Your task to perform on an android device: What is the capital of France? Image 0: 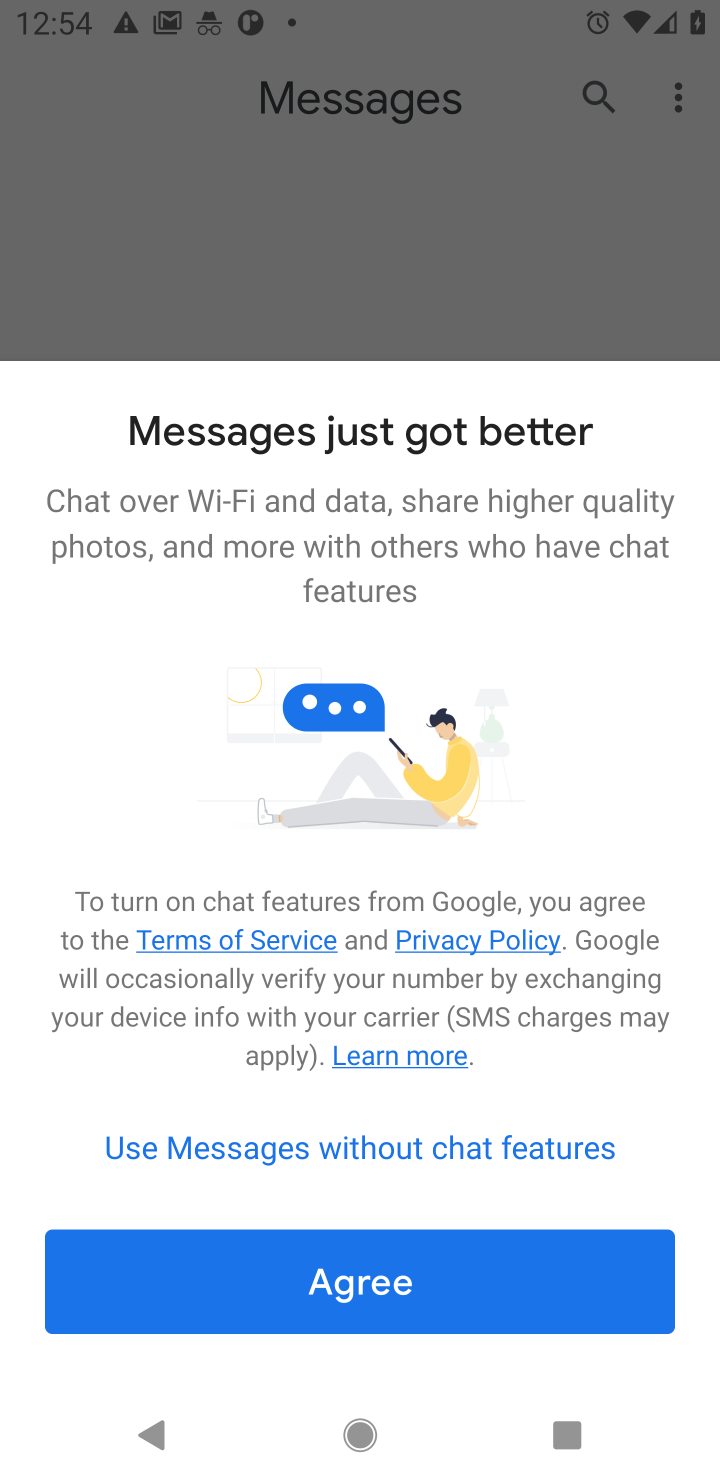
Step 0: press home button
Your task to perform on an android device: What is the capital of France? Image 1: 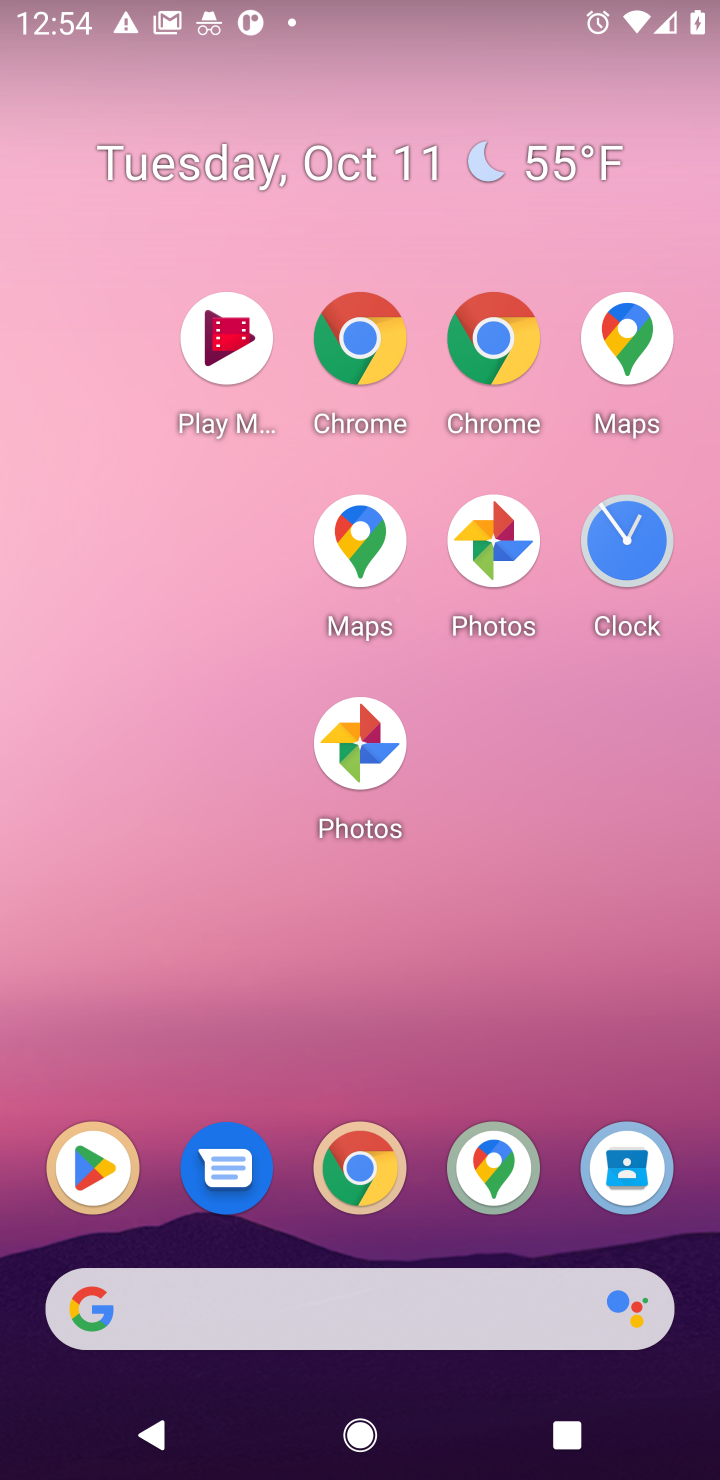
Step 1: drag from (306, 1180) to (411, 526)
Your task to perform on an android device: What is the capital of France? Image 2: 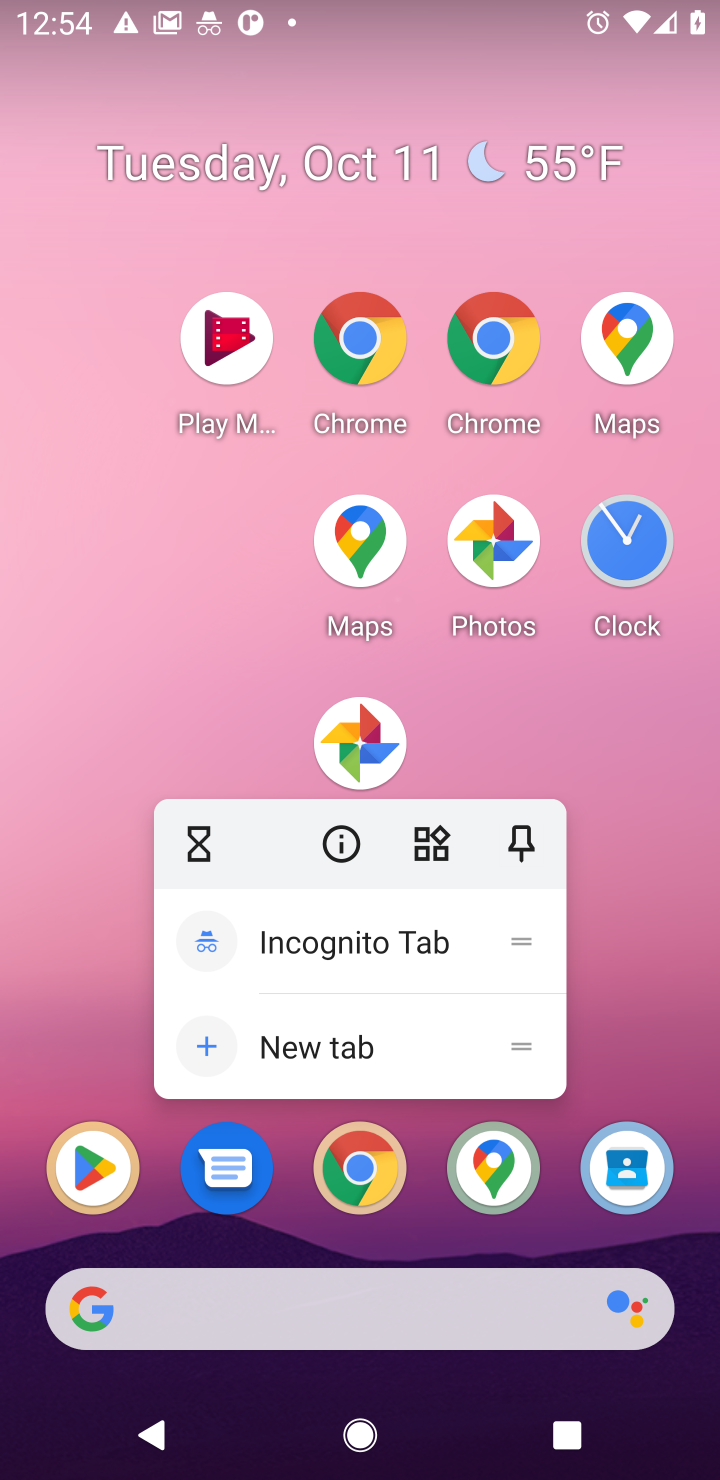
Step 2: click (170, 624)
Your task to perform on an android device: What is the capital of France? Image 3: 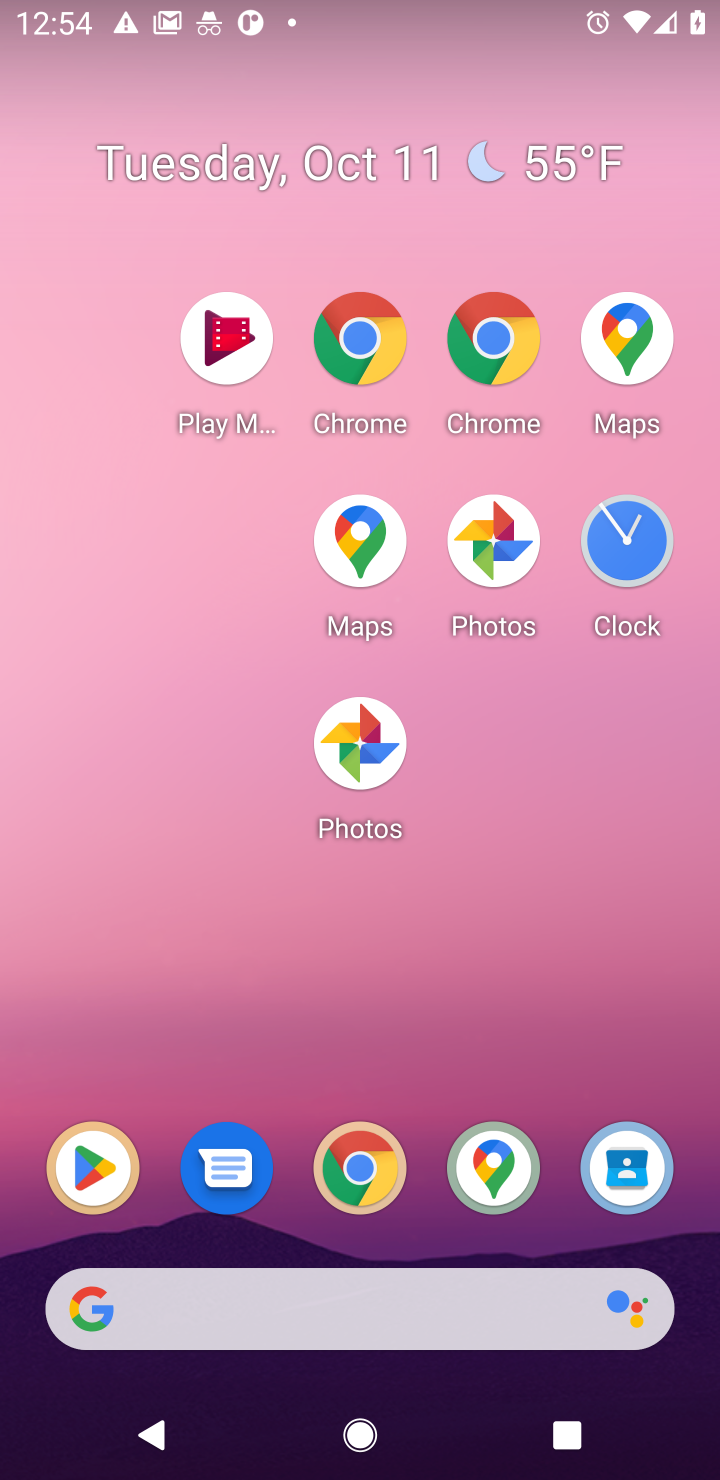
Step 3: drag from (228, 1030) to (400, 36)
Your task to perform on an android device: What is the capital of France? Image 4: 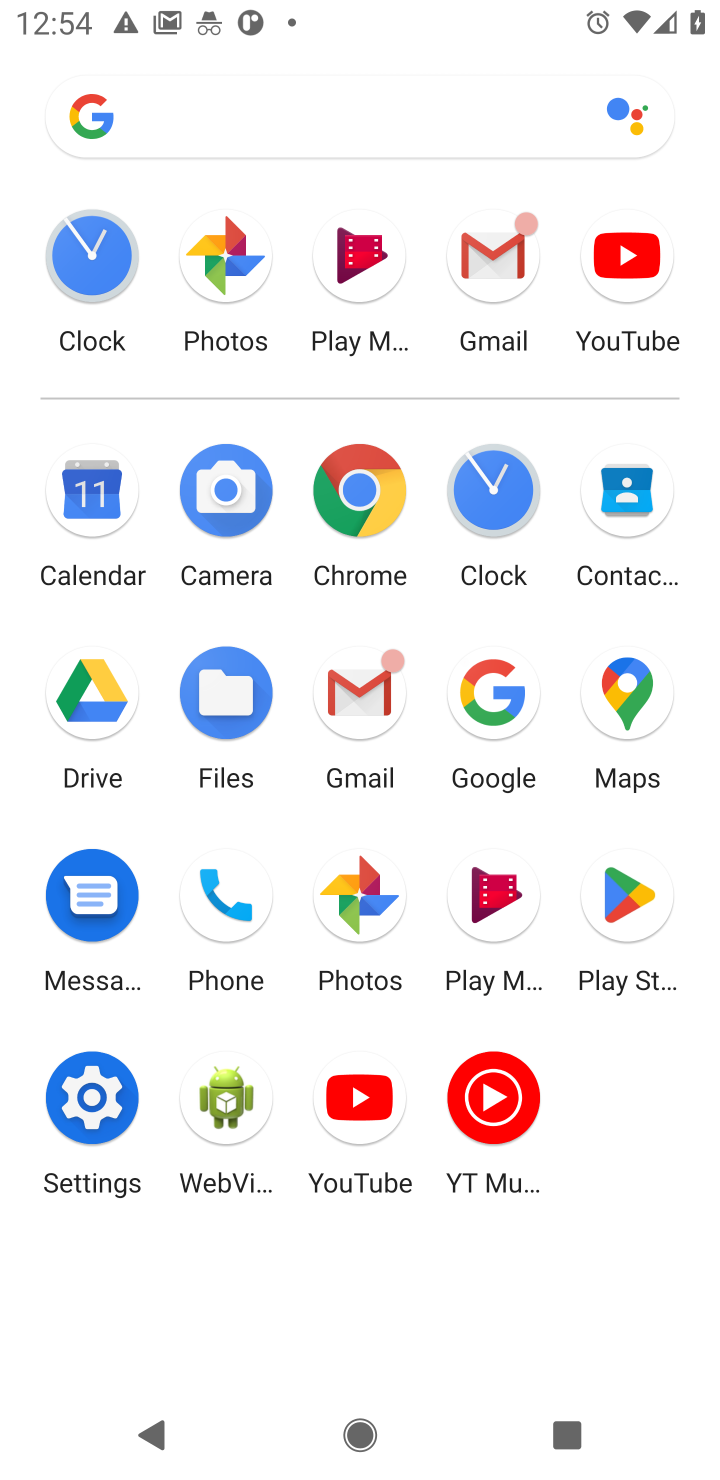
Step 4: click (516, 695)
Your task to perform on an android device: What is the capital of France? Image 5: 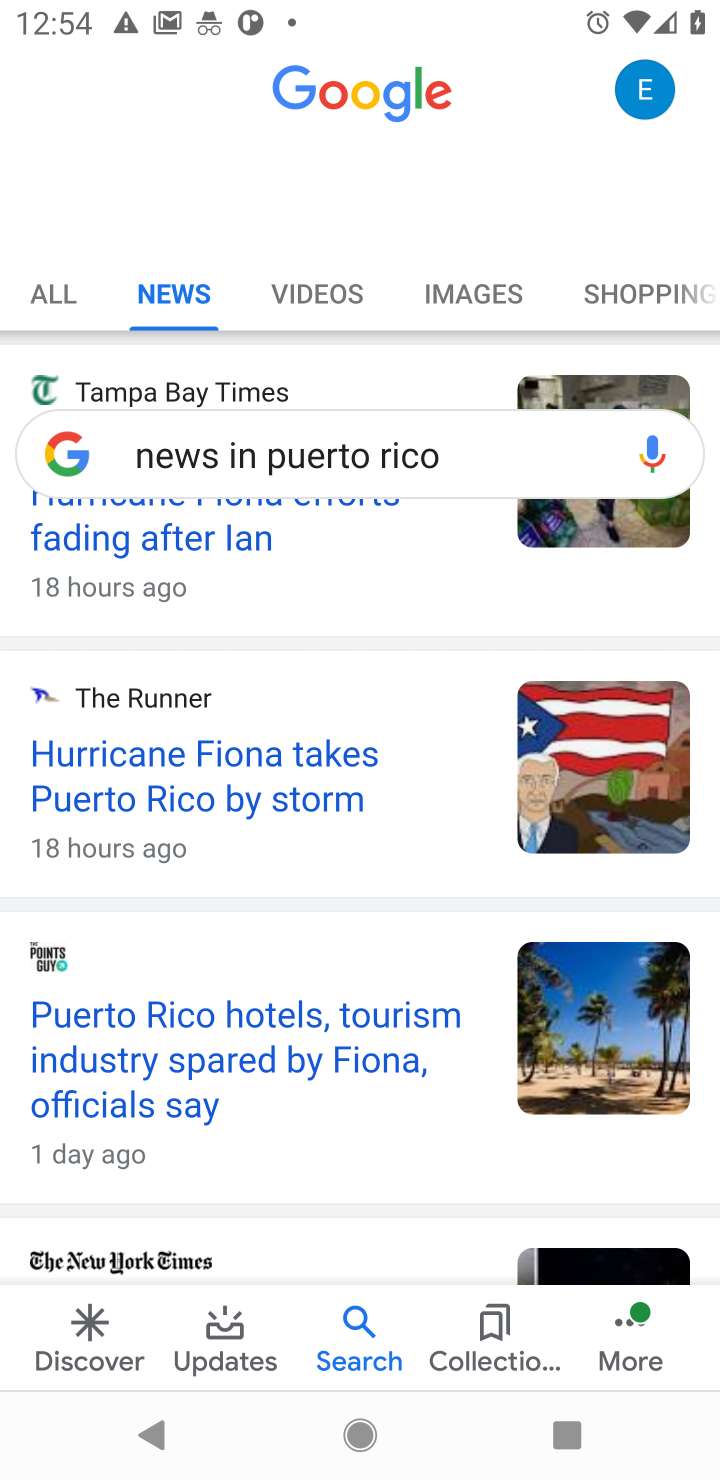
Step 5: click (483, 465)
Your task to perform on an android device: What is the capital of France? Image 6: 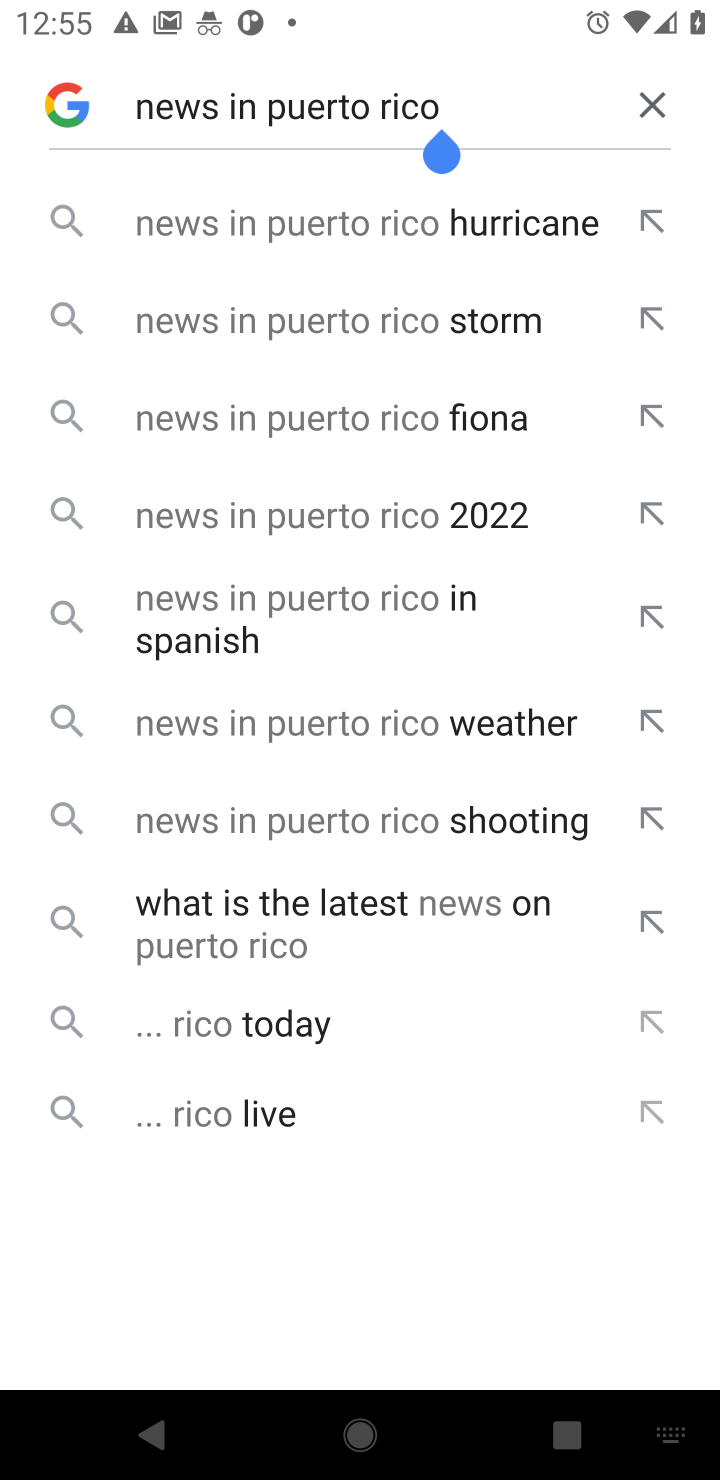
Step 6: click (665, 155)
Your task to perform on an android device: What is the capital of France? Image 7: 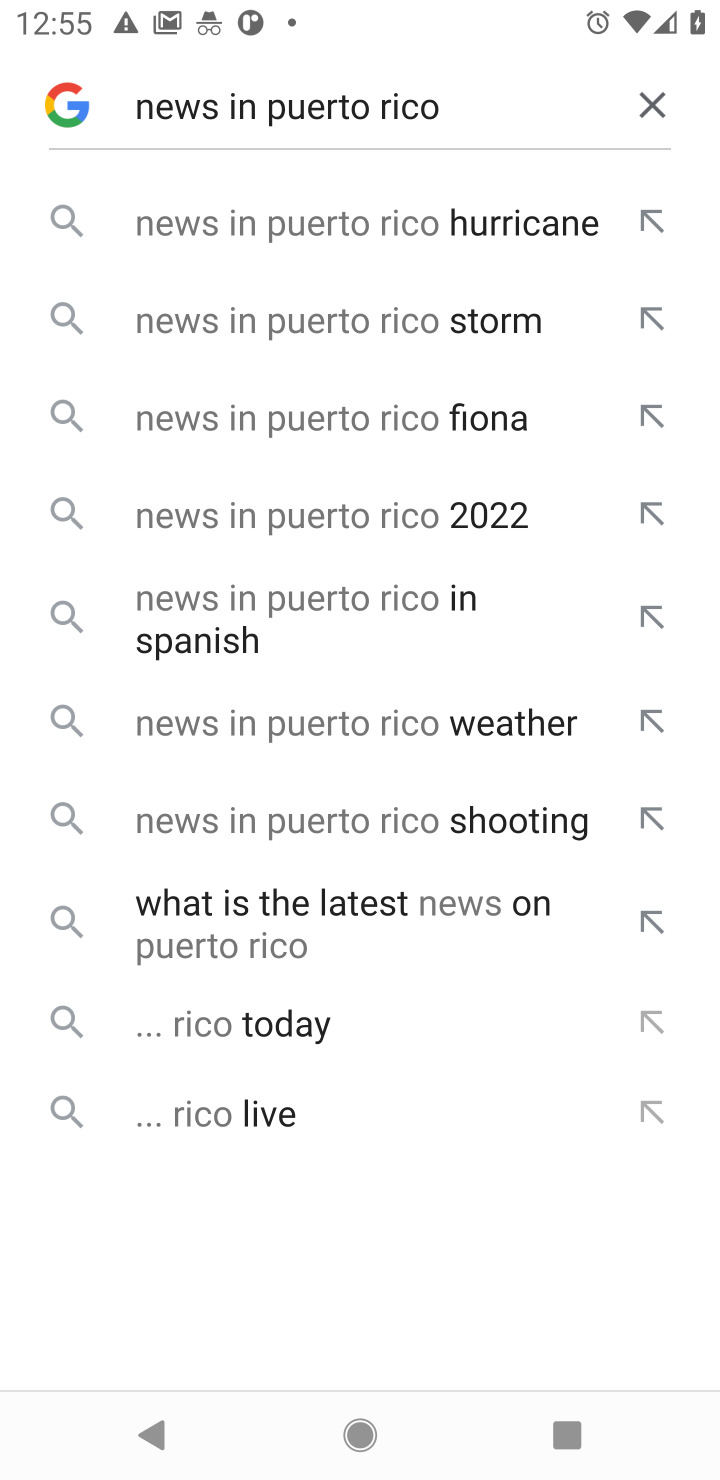
Step 7: click (650, 95)
Your task to perform on an android device: What is the capital of France? Image 8: 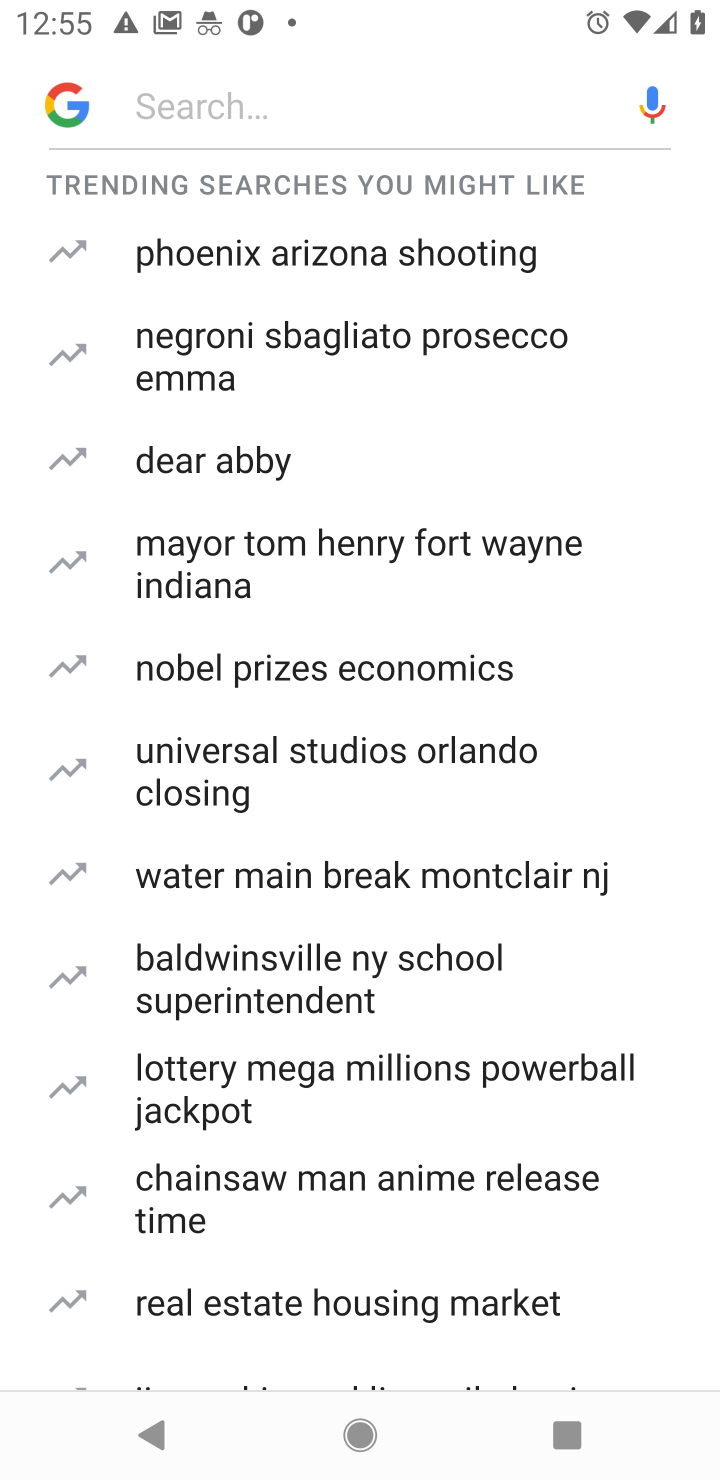
Step 8: type "capital of France"
Your task to perform on an android device: What is the capital of France? Image 9: 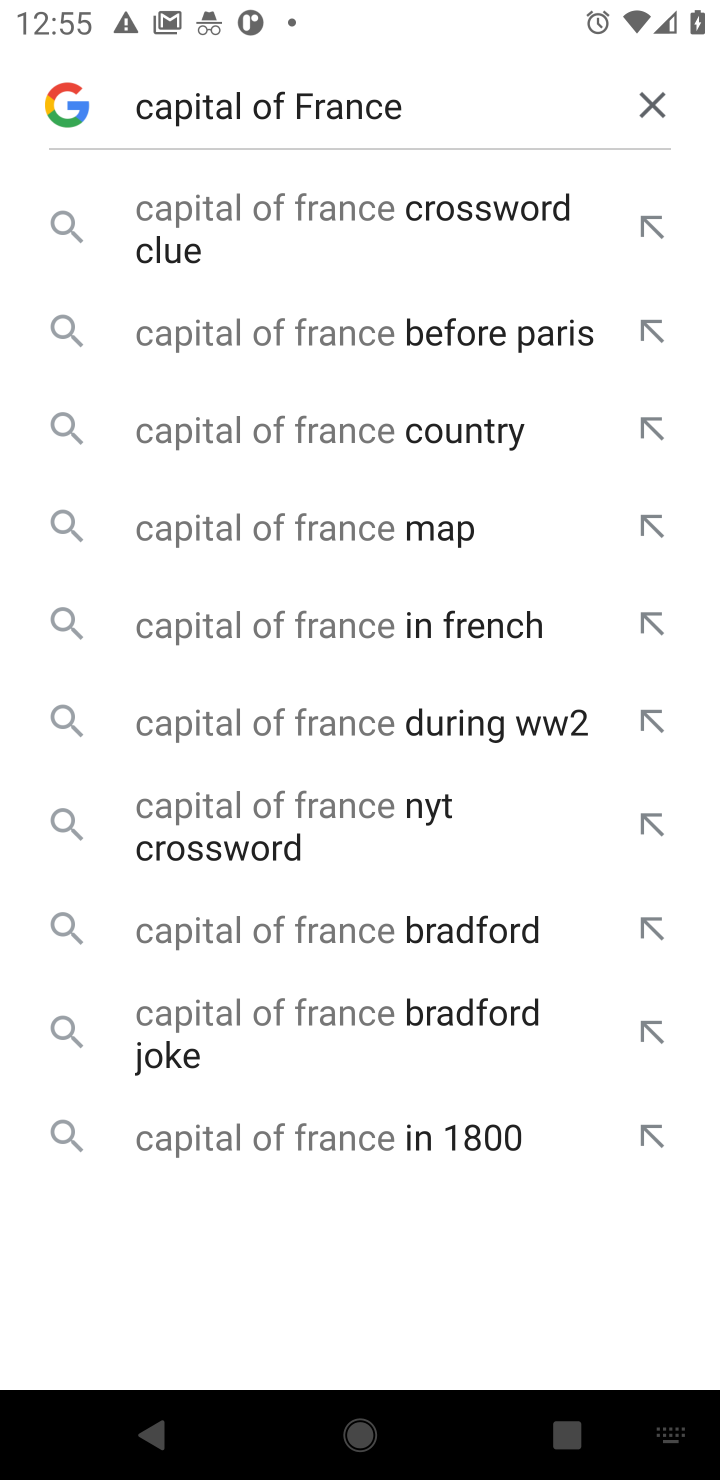
Step 9: click (451, 439)
Your task to perform on an android device: What is the capital of France? Image 10: 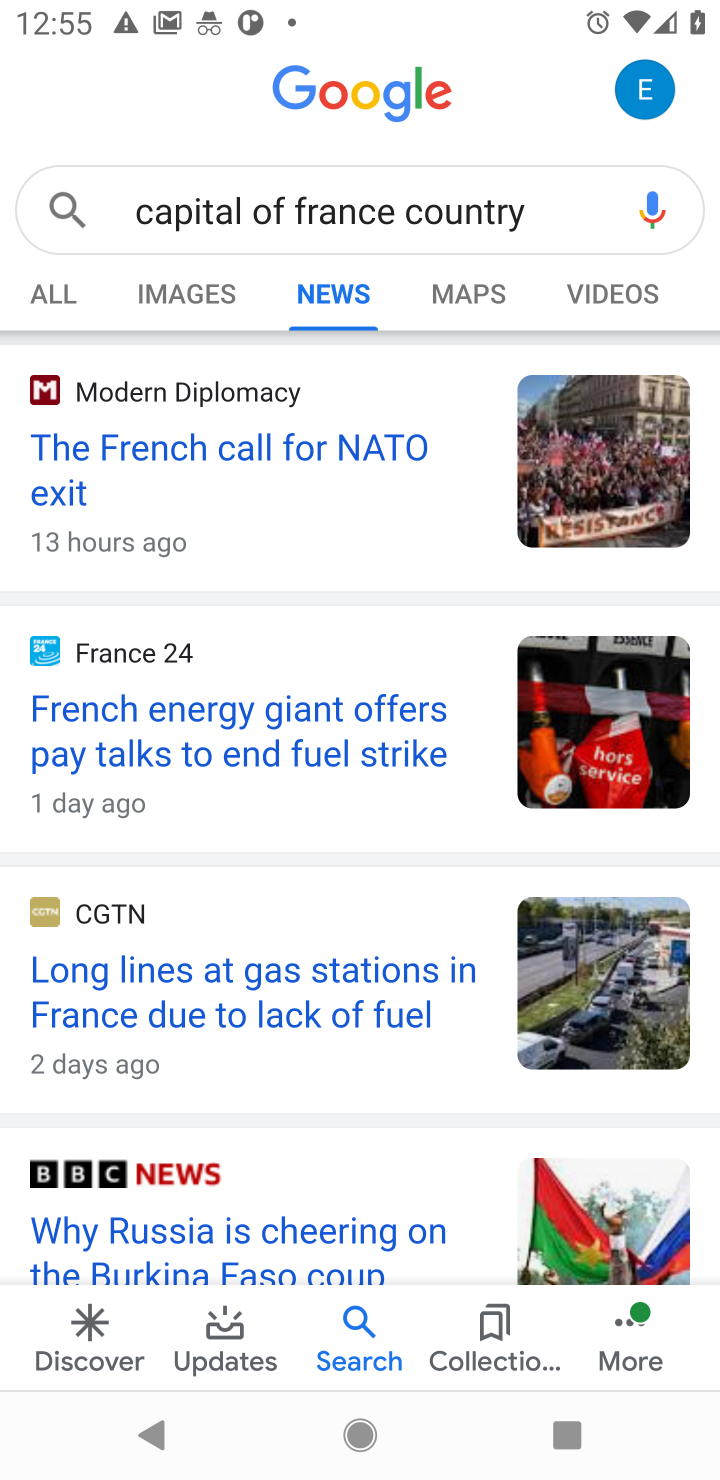
Step 10: click (41, 309)
Your task to perform on an android device: What is the capital of France? Image 11: 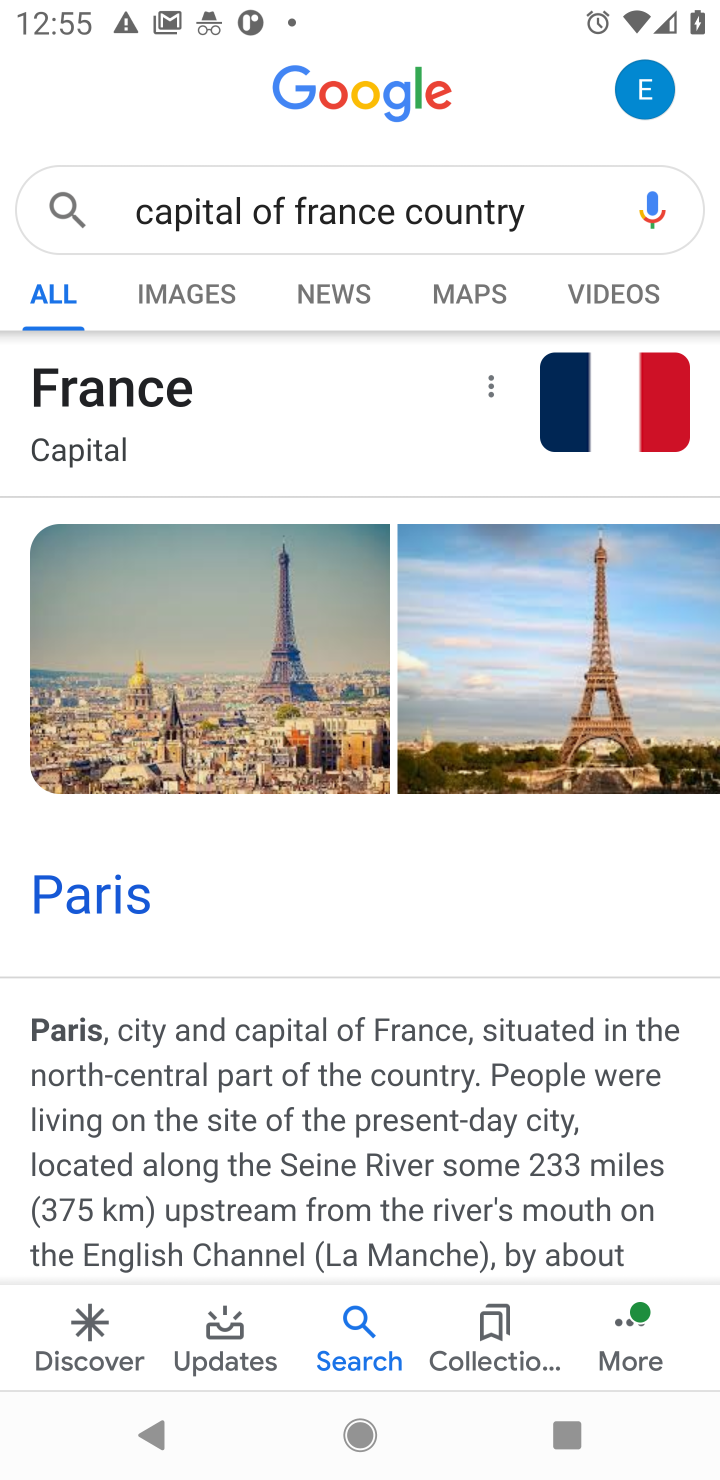
Step 11: task complete